Your task to perform on an android device: Open Google Chrome and open the bookmarks view Image 0: 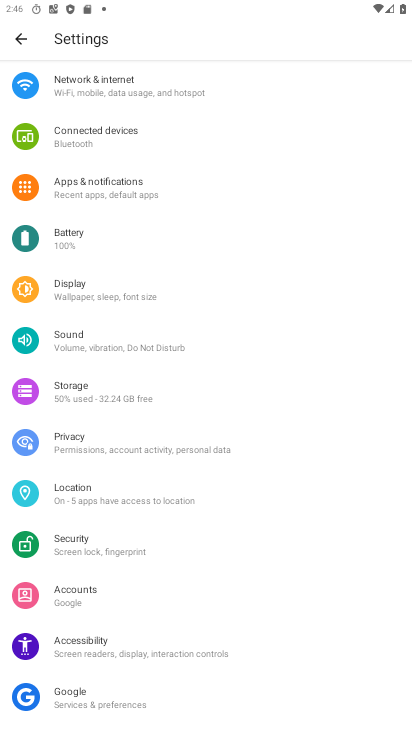
Step 0: press home button
Your task to perform on an android device: Open Google Chrome and open the bookmarks view Image 1: 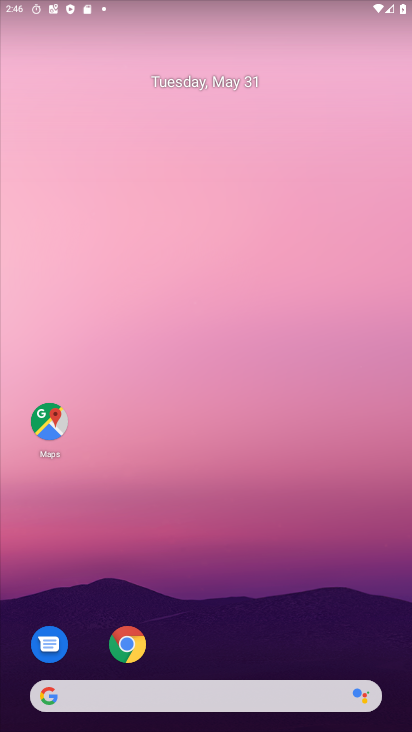
Step 1: click (132, 647)
Your task to perform on an android device: Open Google Chrome and open the bookmarks view Image 2: 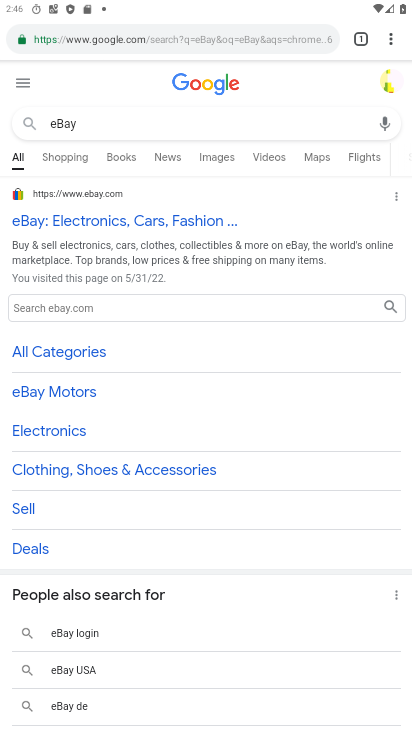
Step 2: click (392, 40)
Your task to perform on an android device: Open Google Chrome and open the bookmarks view Image 3: 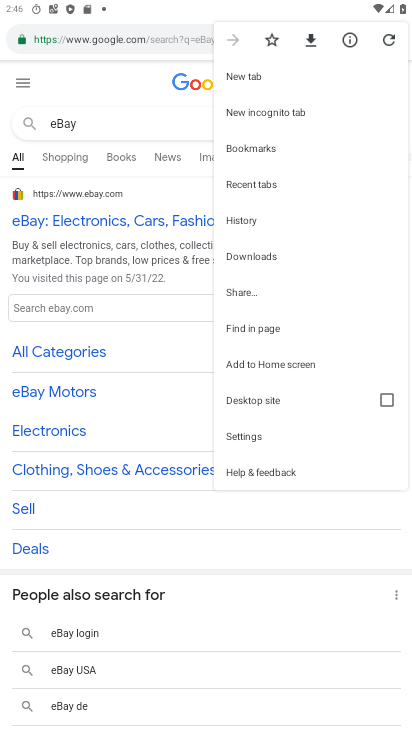
Step 3: click (251, 145)
Your task to perform on an android device: Open Google Chrome and open the bookmarks view Image 4: 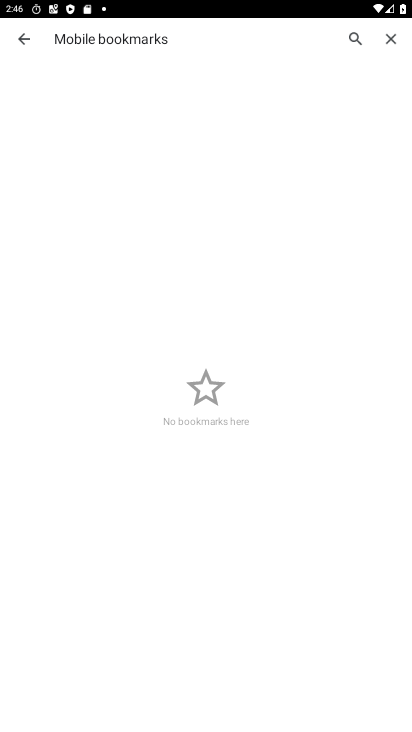
Step 4: task complete